Your task to perform on an android device: turn on notifications settings in the gmail app Image 0: 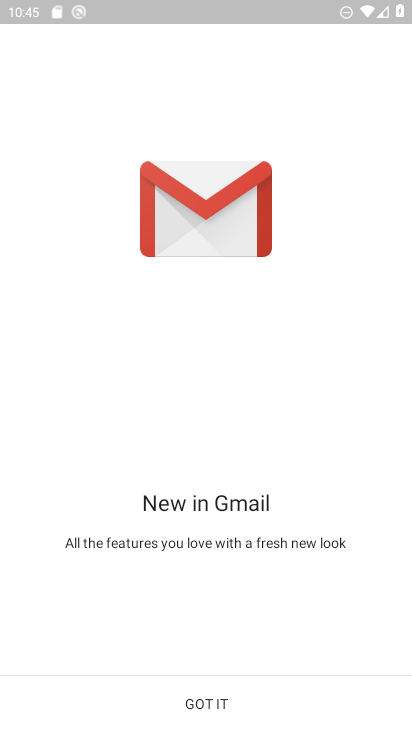
Step 0: click (258, 709)
Your task to perform on an android device: turn on notifications settings in the gmail app Image 1: 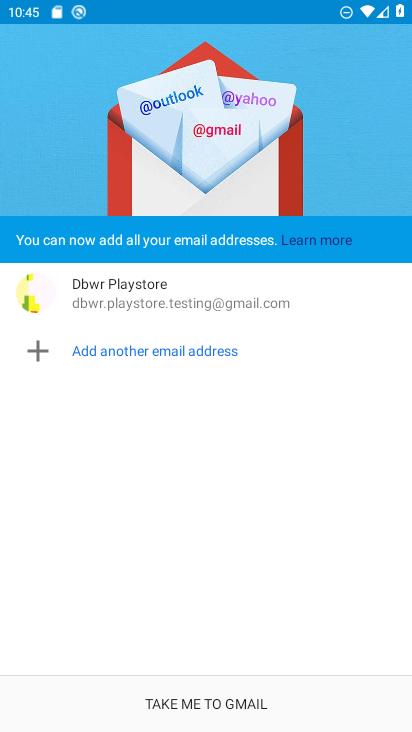
Step 1: click (232, 686)
Your task to perform on an android device: turn on notifications settings in the gmail app Image 2: 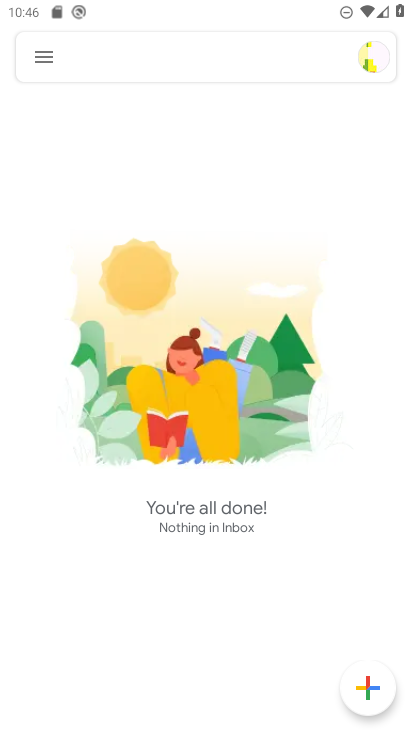
Step 2: click (45, 54)
Your task to perform on an android device: turn on notifications settings in the gmail app Image 3: 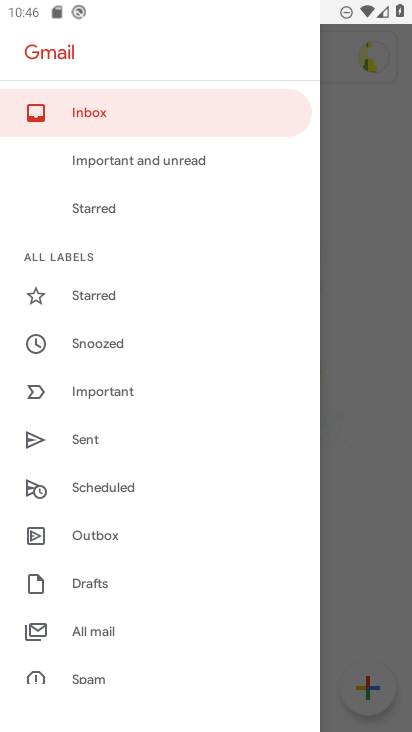
Step 3: drag from (169, 631) to (157, 14)
Your task to perform on an android device: turn on notifications settings in the gmail app Image 4: 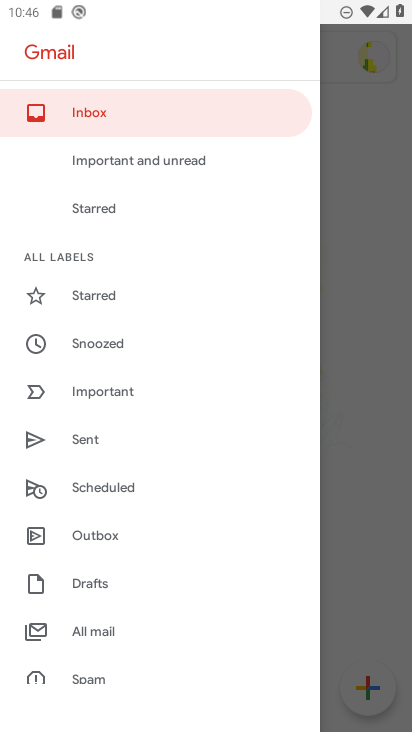
Step 4: drag from (94, 555) to (226, 7)
Your task to perform on an android device: turn on notifications settings in the gmail app Image 5: 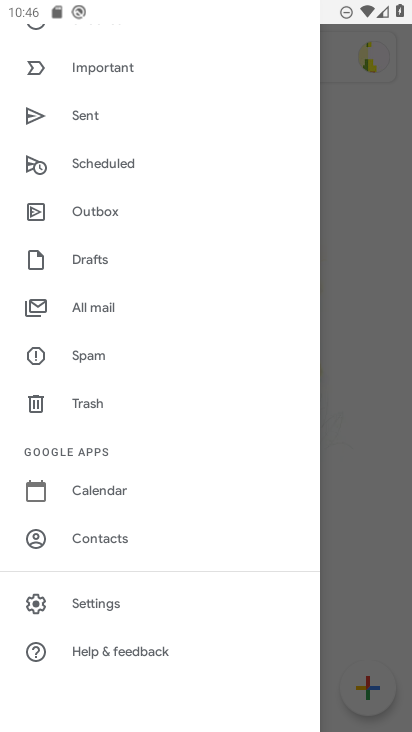
Step 5: click (90, 612)
Your task to perform on an android device: turn on notifications settings in the gmail app Image 6: 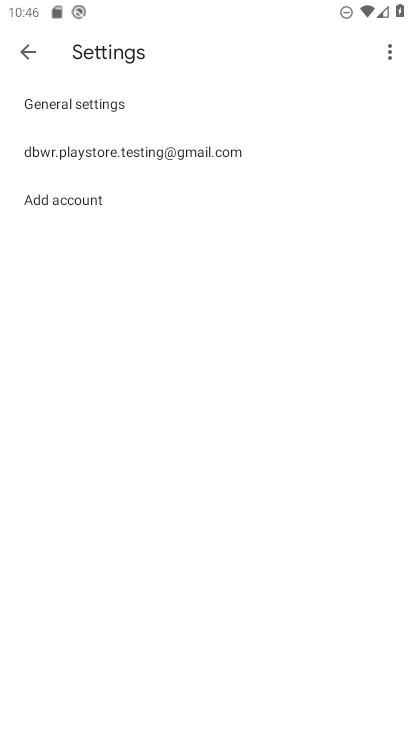
Step 6: click (135, 163)
Your task to perform on an android device: turn on notifications settings in the gmail app Image 7: 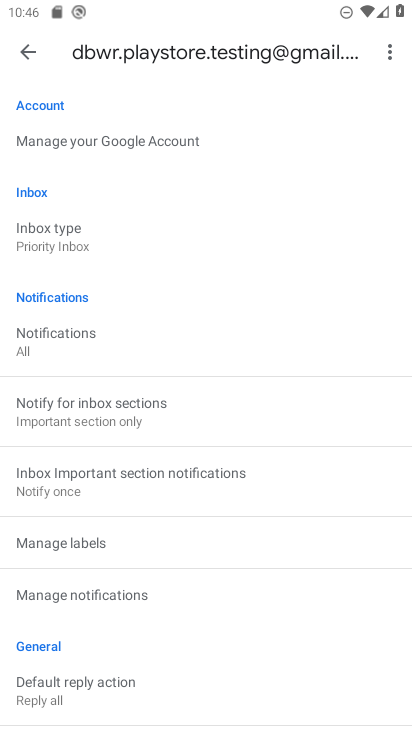
Step 7: click (78, 357)
Your task to perform on an android device: turn on notifications settings in the gmail app Image 8: 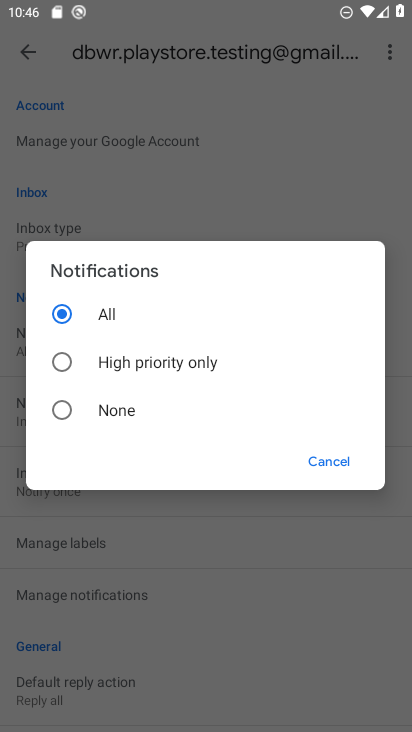
Step 8: task complete